Your task to perform on an android device: Open calendar and show me the second week of next month Image 0: 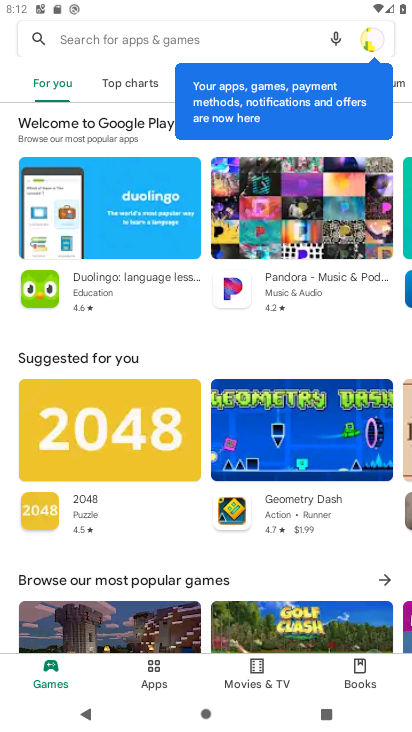
Step 0: press home button
Your task to perform on an android device: Open calendar and show me the second week of next month Image 1: 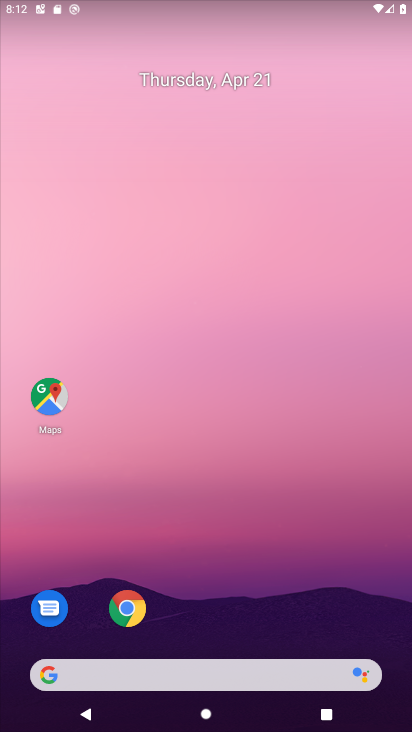
Step 1: click (203, 83)
Your task to perform on an android device: Open calendar and show me the second week of next month Image 2: 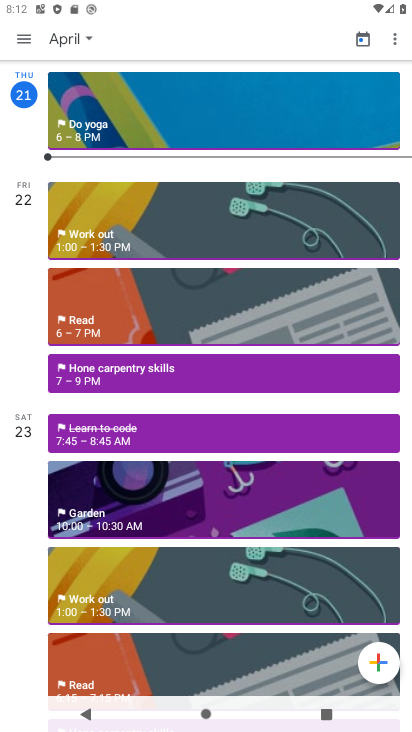
Step 2: click (98, 58)
Your task to perform on an android device: Open calendar and show me the second week of next month Image 3: 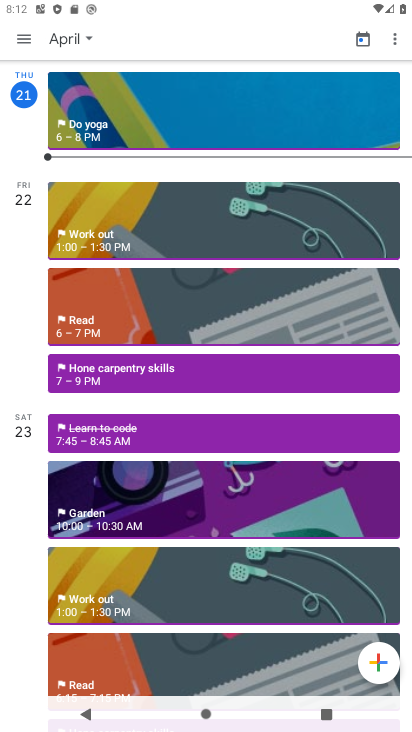
Step 3: click (68, 41)
Your task to perform on an android device: Open calendar and show me the second week of next month Image 4: 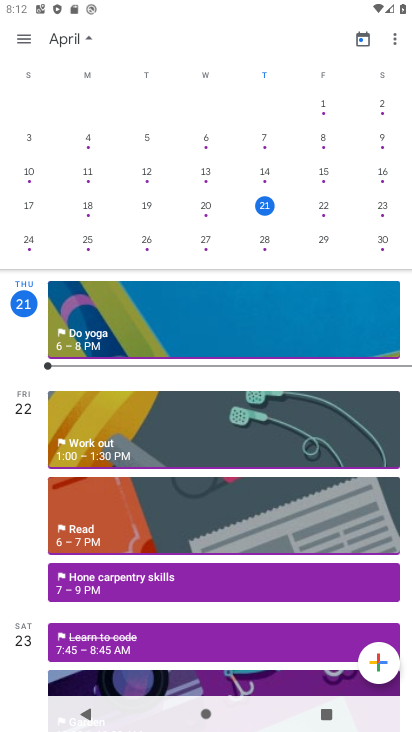
Step 4: drag from (391, 186) to (116, 171)
Your task to perform on an android device: Open calendar and show me the second week of next month Image 5: 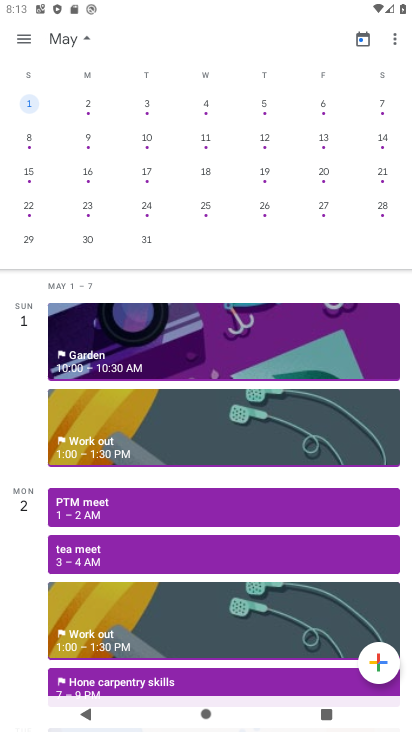
Step 5: click (89, 139)
Your task to perform on an android device: Open calendar and show me the second week of next month Image 6: 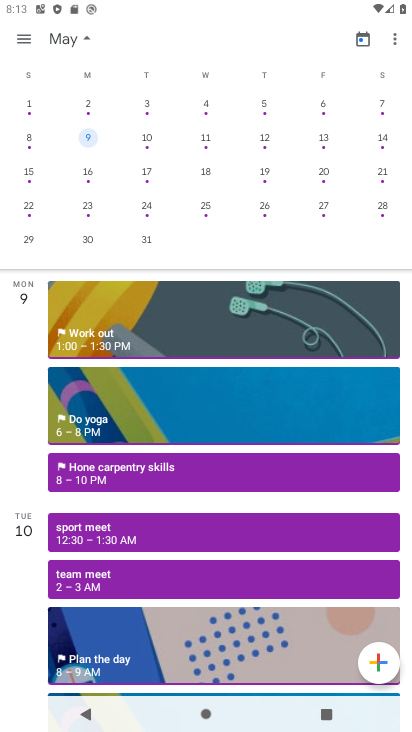
Step 6: task complete